Your task to perform on an android device: Search for Mexican restaurants on Maps Image 0: 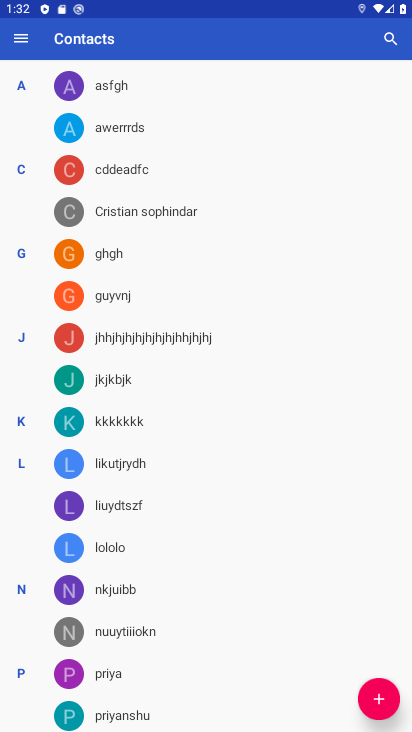
Step 0: press home button
Your task to perform on an android device: Search for Mexican restaurants on Maps Image 1: 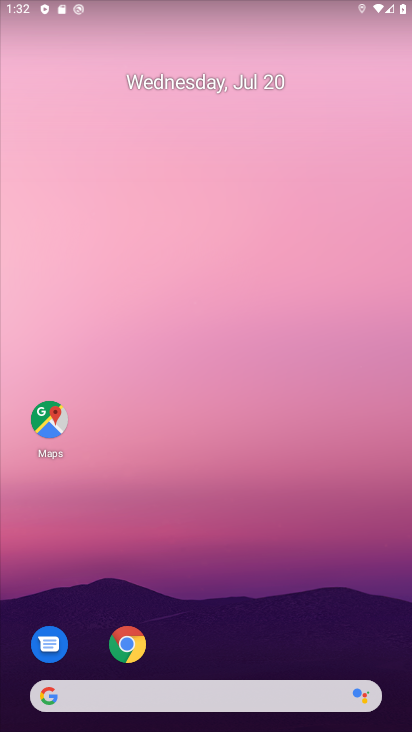
Step 1: click (46, 416)
Your task to perform on an android device: Search for Mexican restaurants on Maps Image 2: 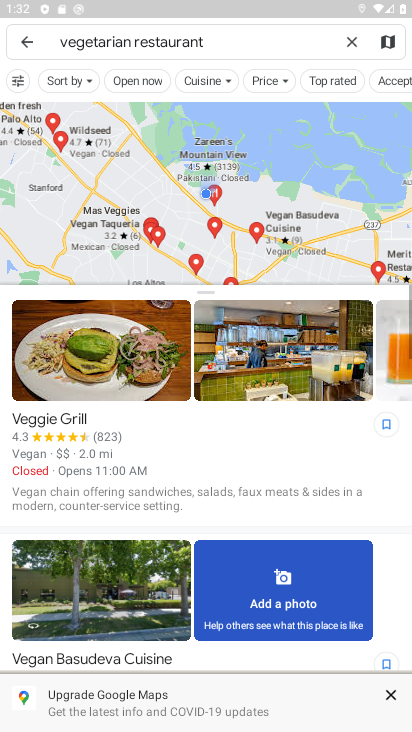
Step 2: click (347, 37)
Your task to perform on an android device: Search for Mexican restaurants on Maps Image 3: 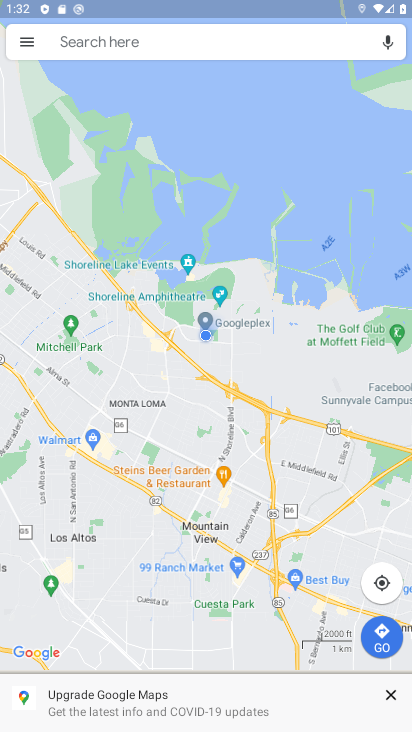
Step 3: click (284, 37)
Your task to perform on an android device: Search for Mexican restaurants on Maps Image 4: 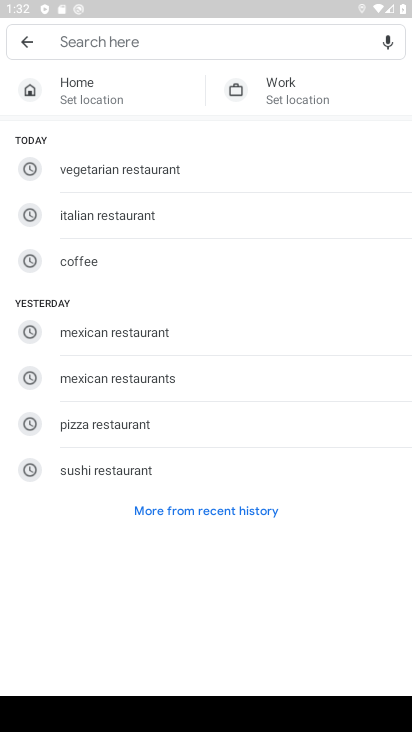
Step 4: type "mexican restaurants"
Your task to perform on an android device: Search for Mexican restaurants on Maps Image 5: 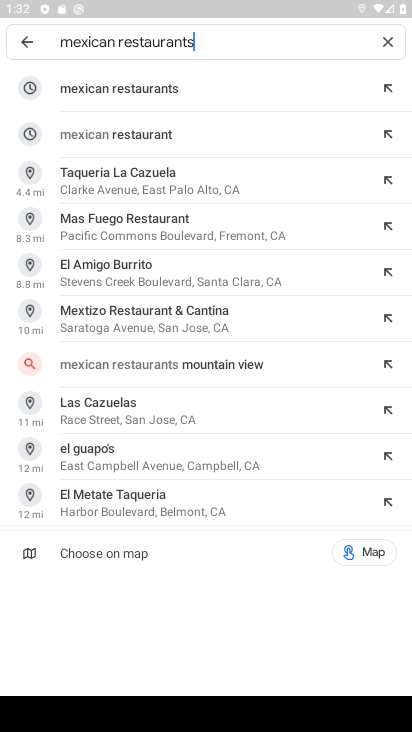
Step 5: click (284, 80)
Your task to perform on an android device: Search for Mexican restaurants on Maps Image 6: 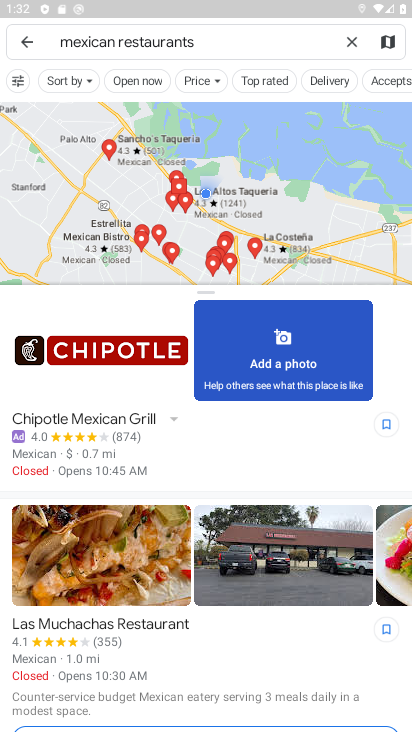
Step 6: task complete